Your task to perform on an android device: open a bookmark in the chrome app Image 0: 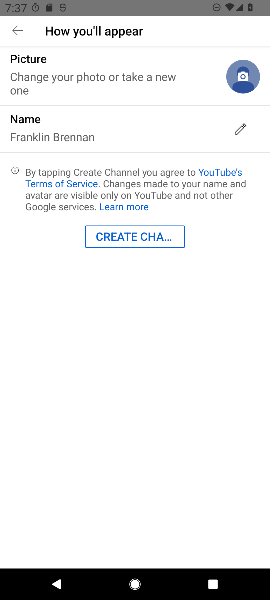
Step 0: press home button
Your task to perform on an android device: open a bookmark in the chrome app Image 1: 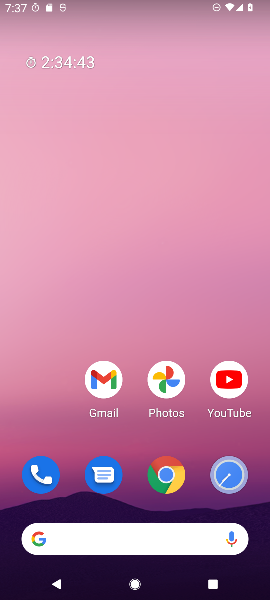
Step 1: drag from (60, 431) to (56, 159)
Your task to perform on an android device: open a bookmark in the chrome app Image 2: 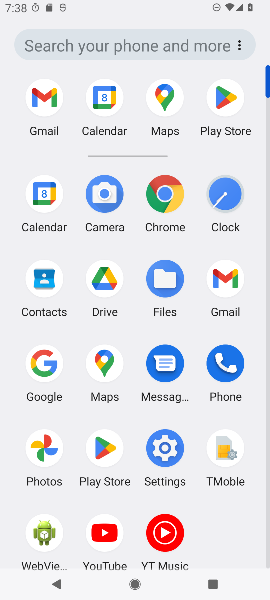
Step 2: click (160, 206)
Your task to perform on an android device: open a bookmark in the chrome app Image 3: 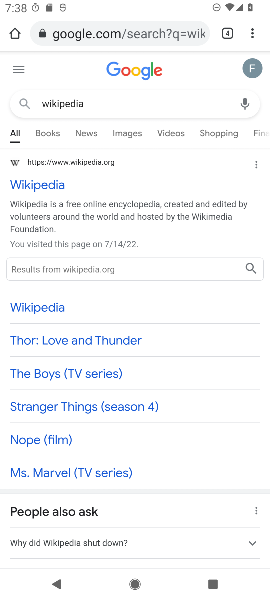
Step 3: click (251, 30)
Your task to perform on an android device: open a bookmark in the chrome app Image 4: 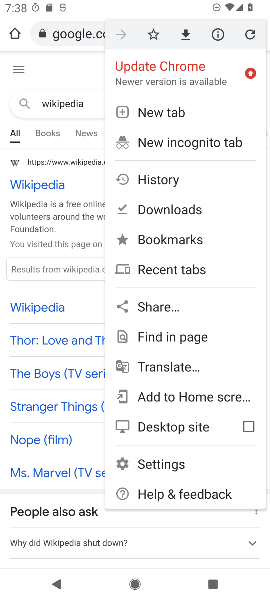
Step 4: click (225, 242)
Your task to perform on an android device: open a bookmark in the chrome app Image 5: 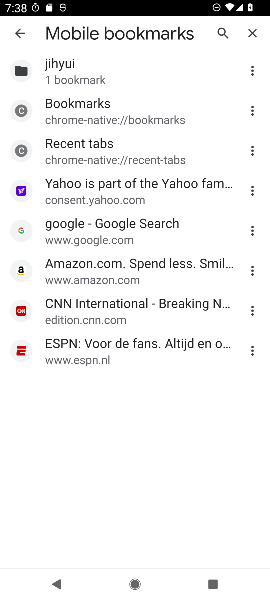
Step 5: click (113, 264)
Your task to perform on an android device: open a bookmark in the chrome app Image 6: 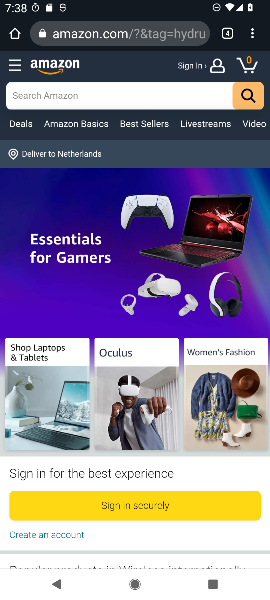
Step 6: task complete